Your task to perform on an android device: toggle airplane mode Image 0: 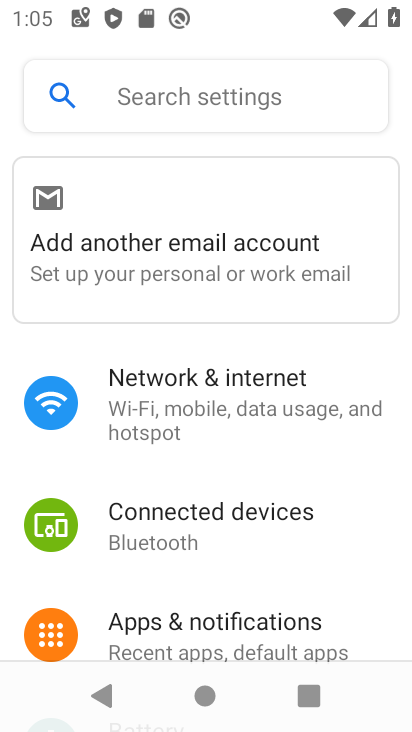
Step 0: press home button
Your task to perform on an android device: toggle airplane mode Image 1: 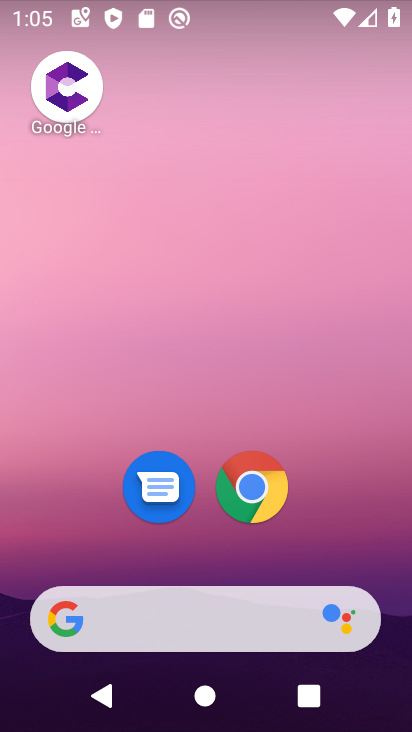
Step 1: drag from (176, 373) to (229, 67)
Your task to perform on an android device: toggle airplane mode Image 2: 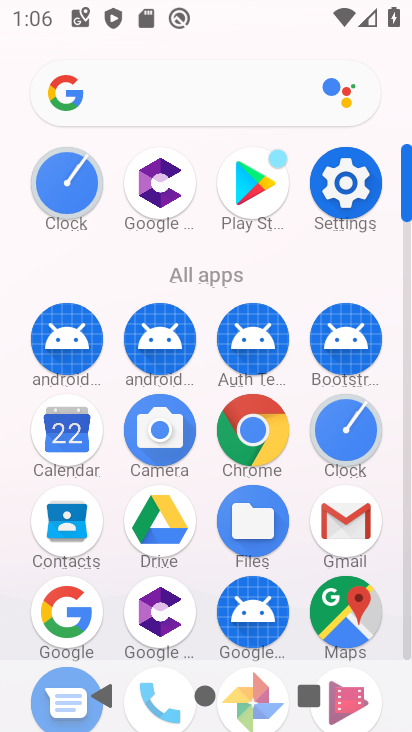
Step 2: click (330, 195)
Your task to perform on an android device: toggle airplane mode Image 3: 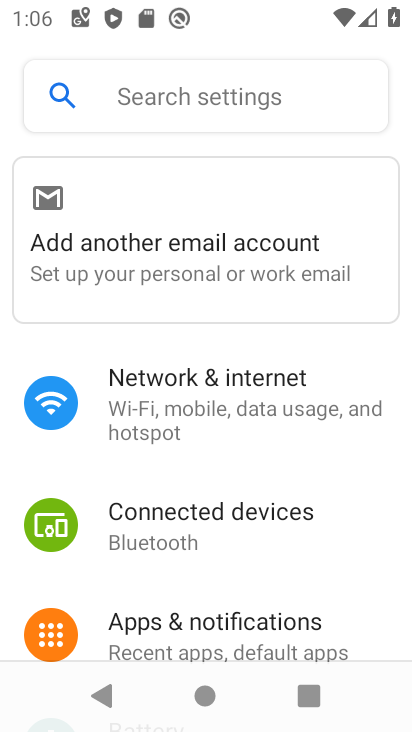
Step 3: click (197, 402)
Your task to perform on an android device: toggle airplane mode Image 4: 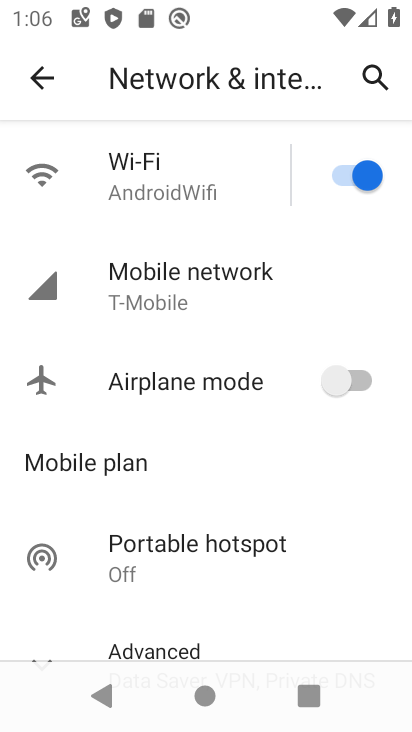
Step 4: click (363, 379)
Your task to perform on an android device: toggle airplane mode Image 5: 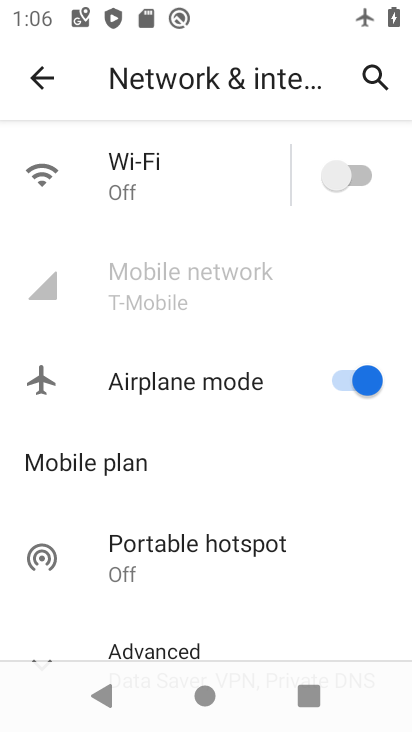
Step 5: task complete